Your task to perform on an android device: Toggle the flashlight Image 0: 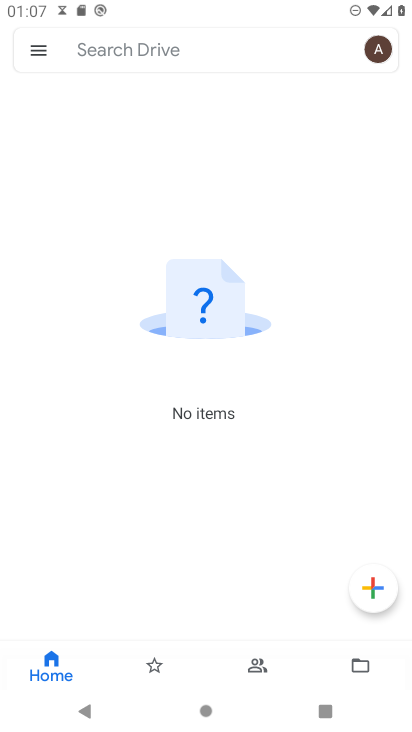
Step 0: press home button
Your task to perform on an android device: Toggle the flashlight Image 1: 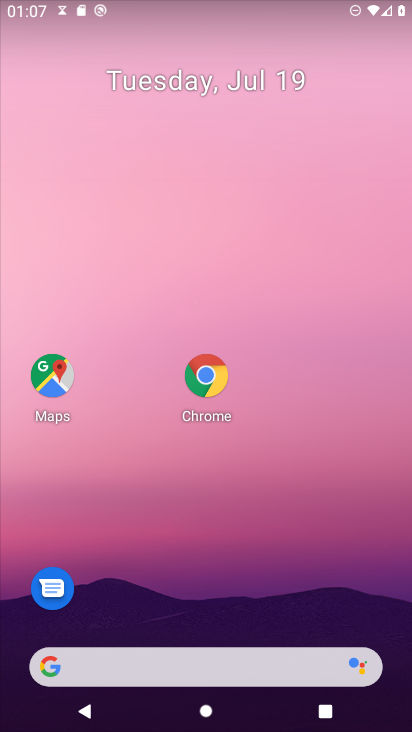
Step 1: task complete